Your task to perform on an android device: Turn off the flashlight Image 0: 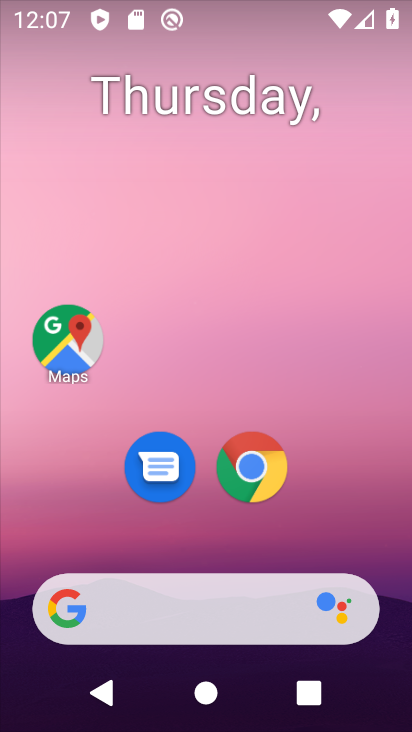
Step 0: drag from (389, 657) to (363, 275)
Your task to perform on an android device: Turn off the flashlight Image 1: 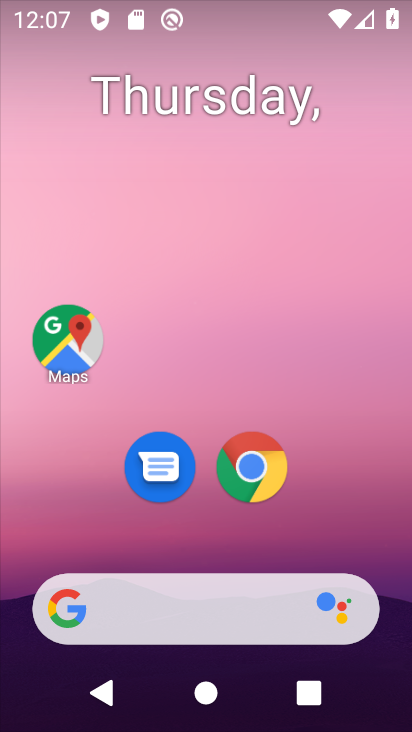
Step 1: drag from (399, 628) to (392, 220)
Your task to perform on an android device: Turn off the flashlight Image 2: 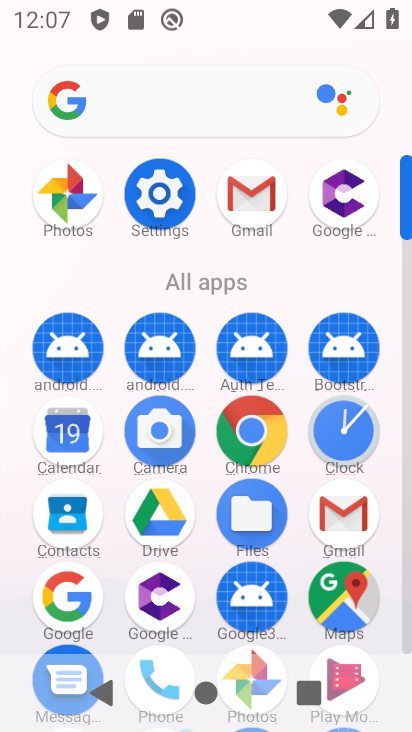
Step 2: click (147, 203)
Your task to perform on an android device: Turn off the flashlight Image 3: 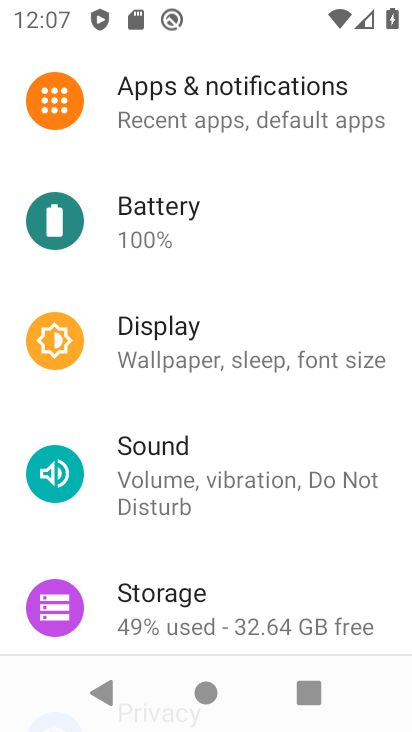
Step 3: click (129, 316)
Your task to perform on an android device: Turn off the flashlight Image 4: 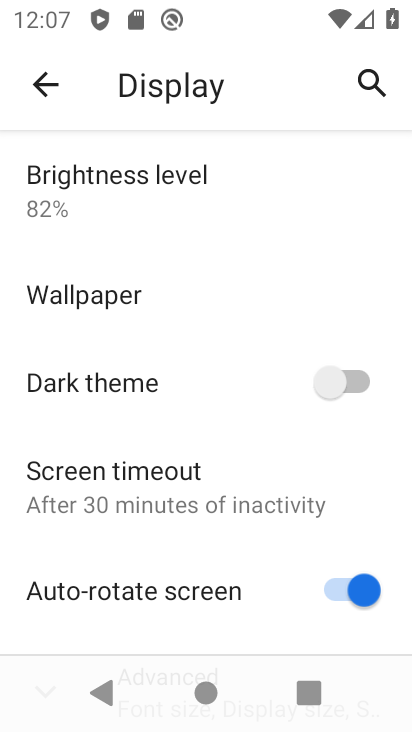
Step 4: task complete